Your task to perform on an android device: Open Google Maps Image 0: 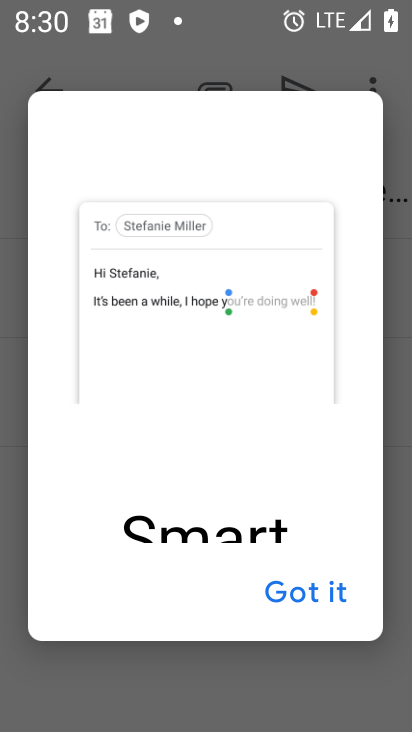
Step 0: press home button
Your task to perform on an android device: Open Google Maps Image 1: 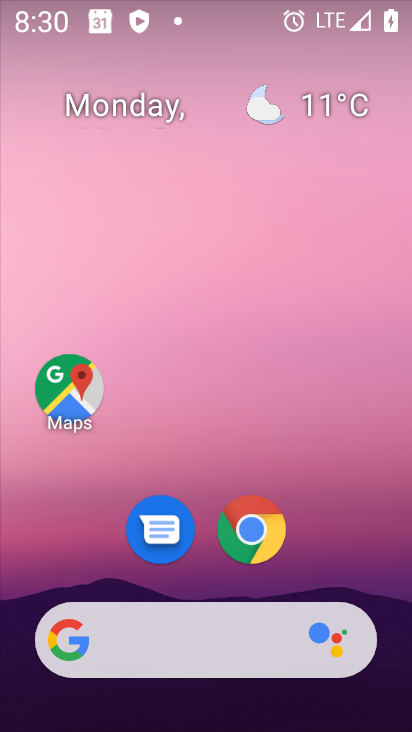
Step 1: click (64, 404)
Your task to perform on an android device: Open Google Maps Image 2: 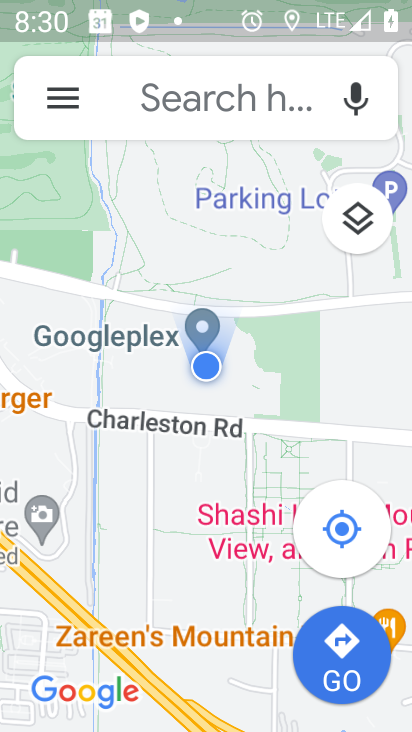
Step 2: task complete